Your task to perform on an android device: Go to Google Image 0: 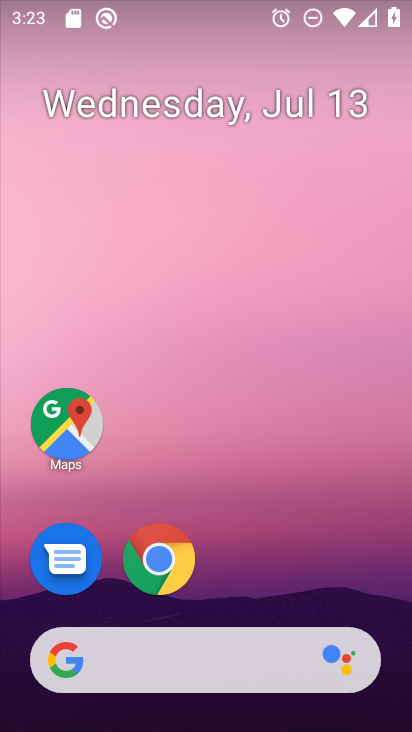
Step 0: drag from (373, 598) to (387, 177)
Your task to perform on an android device: Go to Google Image 1: 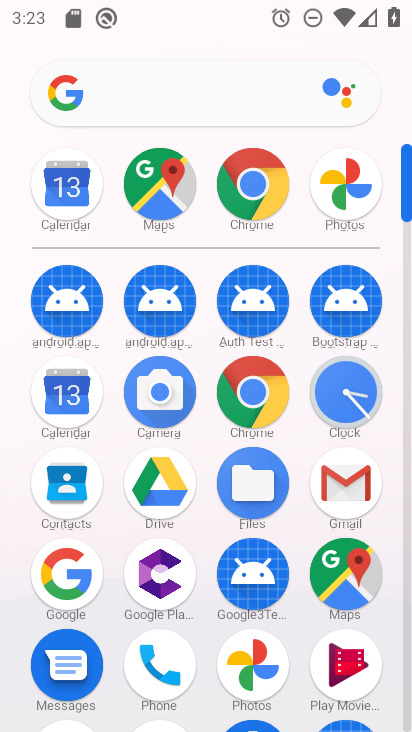
Step 1: click (74, 571)
Your task to perform on an android device: Go to Google Image 2: 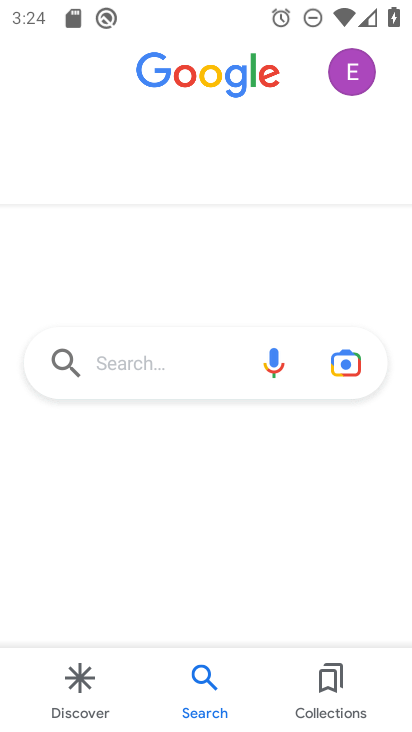
Step 2: task complete